Your task to perform on an android device: open a bookmark in the chrome app Image 0: 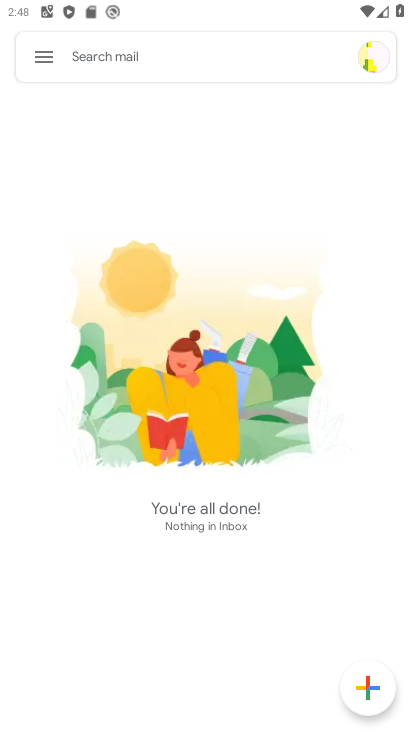
Step 0: press home button
Your task to perform on an android device: open a bookmark in the chrome app Image 1: 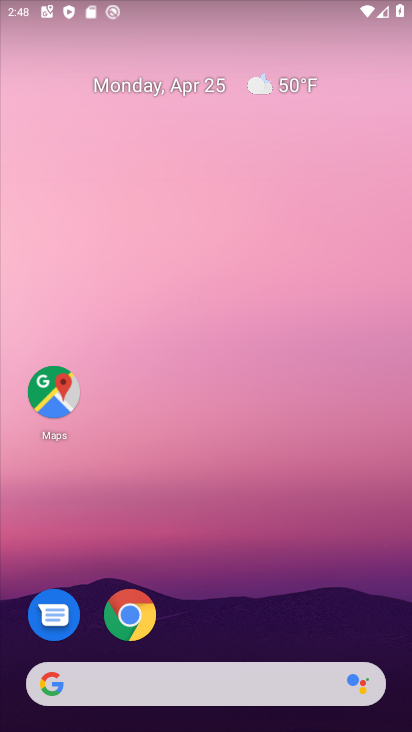
Step 1: click (127, 614)
Your task to perform on an android device: open a bookmark in the chrome app Image 2: 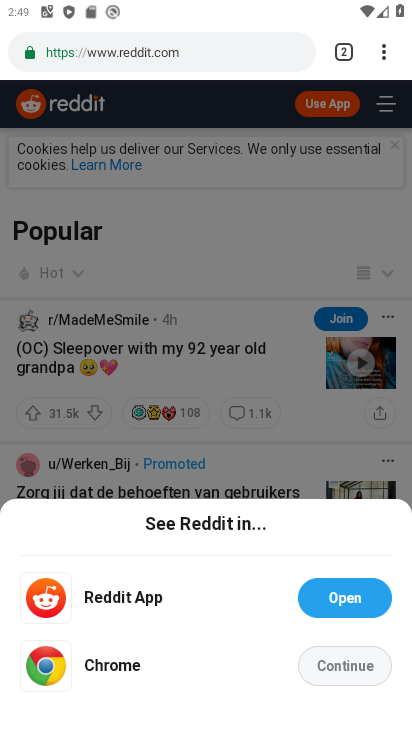
Step 2: click (384, 60)
Your task to perform on an android device: open a bookmark in the chrome app Image 3: 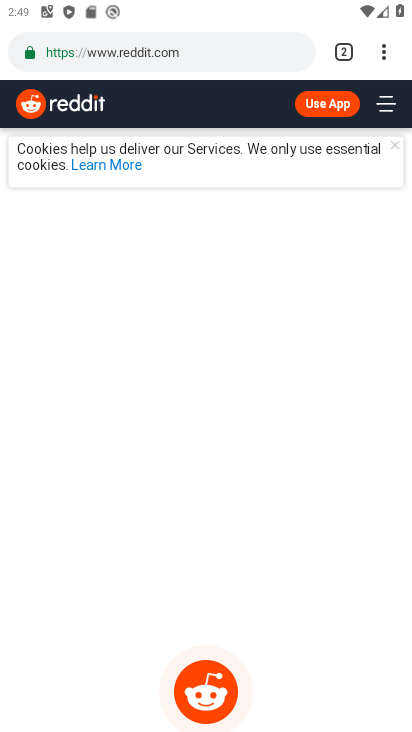
Step 3: task complete